Your task to perform on an android device: manage bookmarks in the chrome app Image 0: 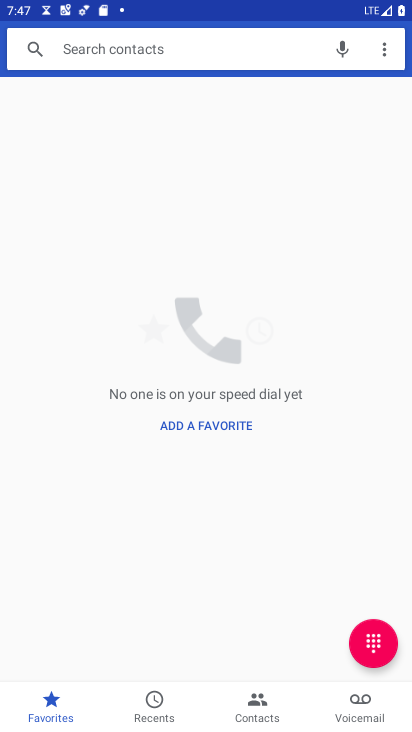
Step 0: press back button
Your task to perform on an android device: manage bookmarks in the chrome app Image 1: 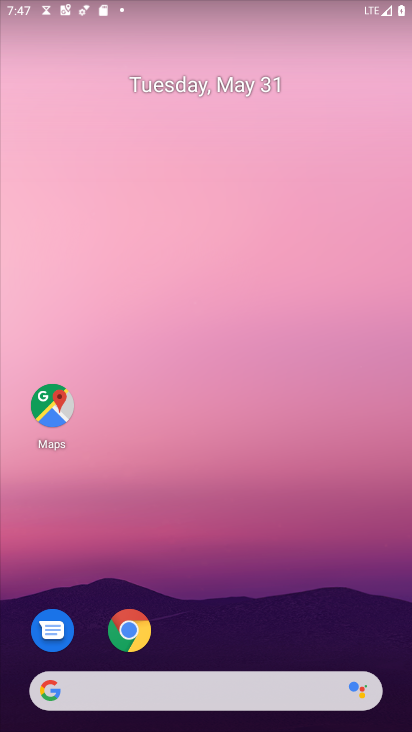
Step 1: click (128, 630)
Your task to perform on an android device: manage bookmarks in the chrome app Image 2: 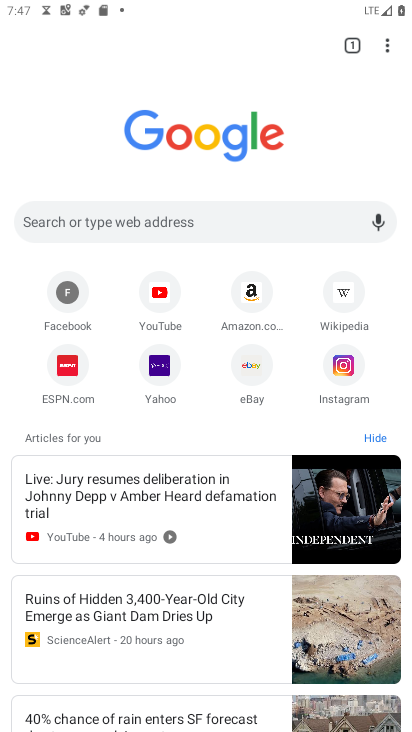
Step 2: click (389, 46)
Your task to perform on an android device: manage bookmarks in the chrome app Image 3: 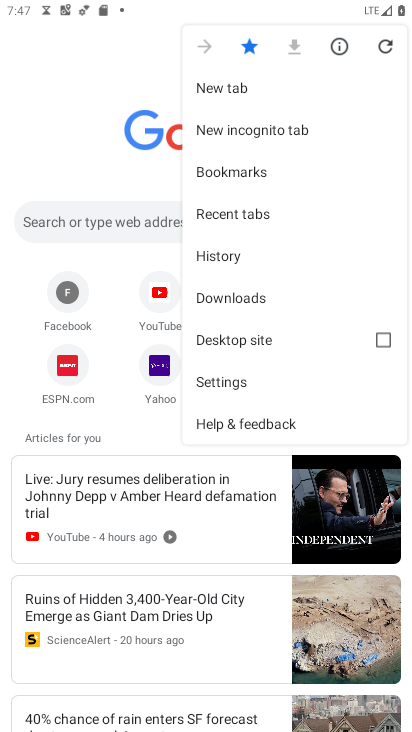
Step 3: click (251, 173)
Your task to perform on an android device: manage bookmarks in the chrome app Image 4: 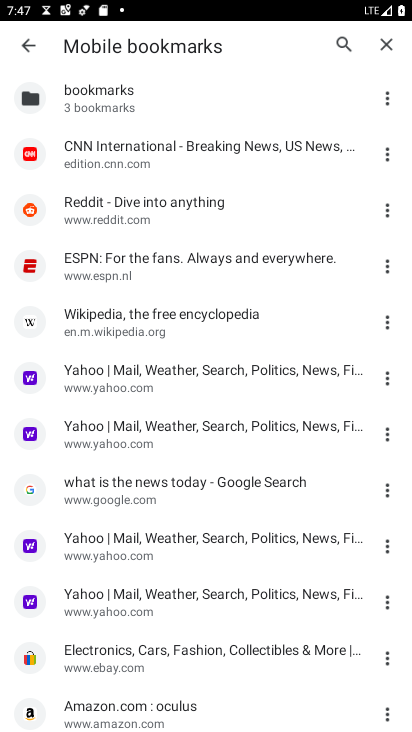
Step 4: click (387, 98)
Your task to perform on an android device: manage bookmarks in the chrome app Image 5: 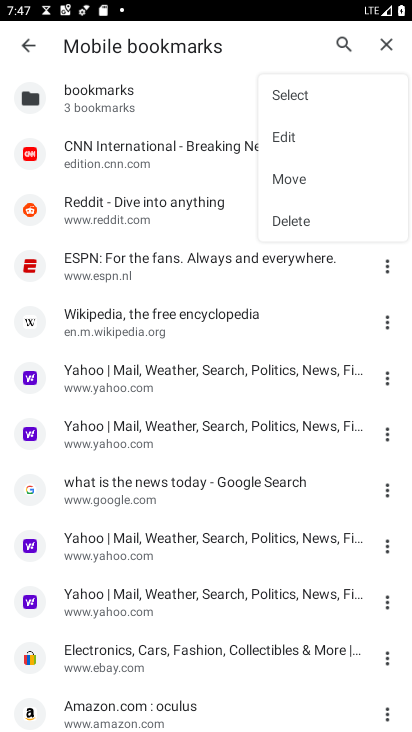
Step 5: click (298, 214)
Your task to perform on an android device: manage bookmarks in the chrome app Image 6: 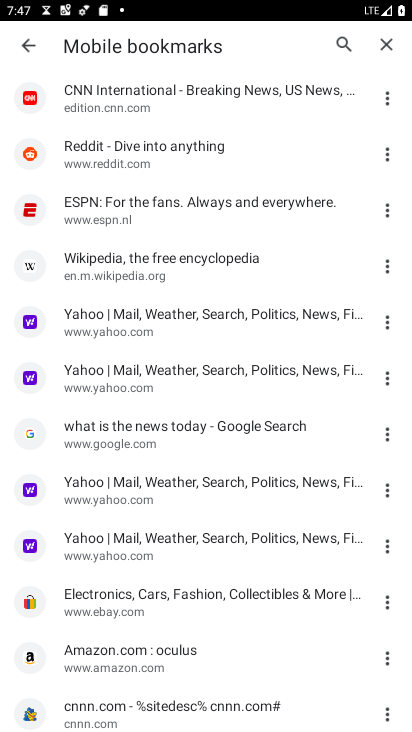
Step 6: task complete